Your task to perform on an android device: Set the phone to "Do not disturb". Image 0: 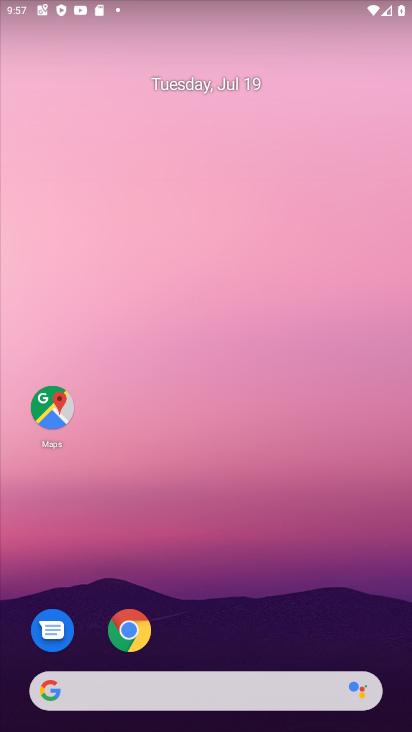
Step 0: drag from (276, 694) to (280, 177)
Your task to perform on an android device: Set the phone to "Do not disturb". Image 1: 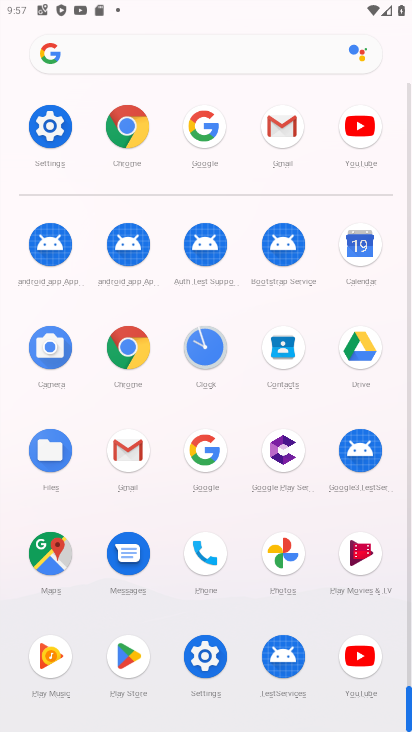
Step 1: drag from (160, 13) to (224, 581)
Your task to perform on an android device: Set the phone to "Do not disturb". Image 2: 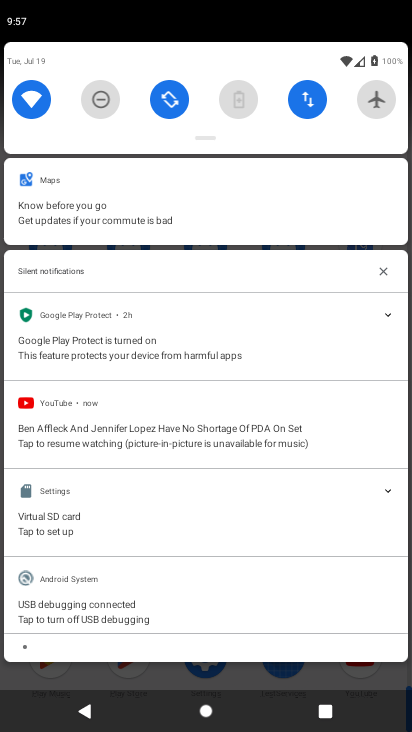
Step 2: click (98, 102)
Your task to perform on an android device: Set the phone to "Do not disturb". Image 3: 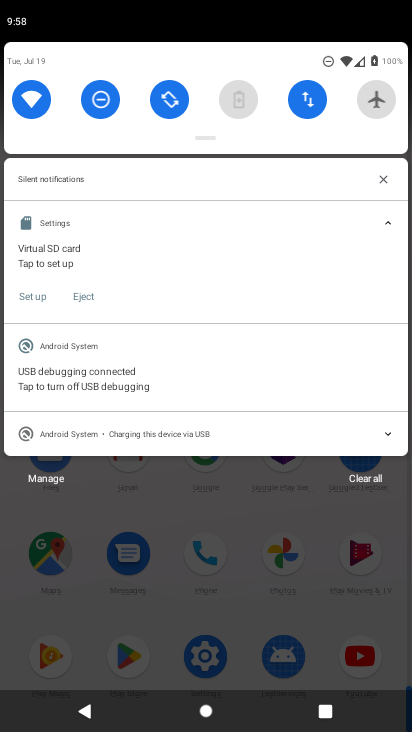
Step 3: task complete